Your task to perform on an android device: Open settings Image 0: 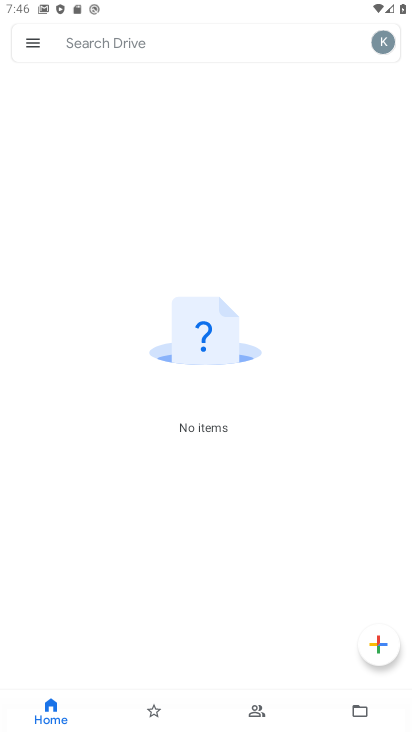
Step 0: press home button
Your task to perform on an android device: Open settings Image 1: 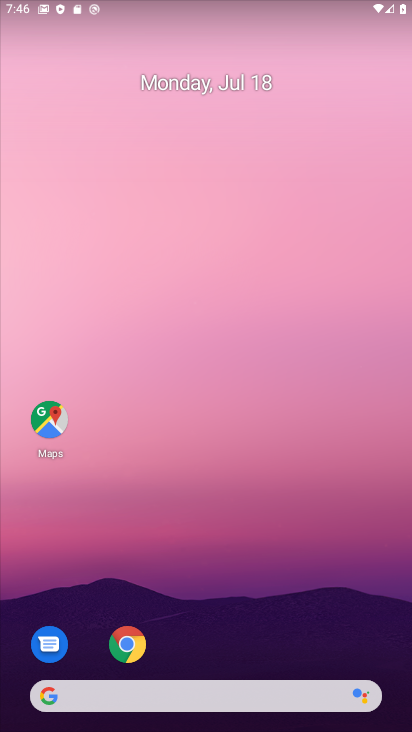
Step 1: drag from (163, 697) to (291, 171)
Your task to perform on an android device: Open settings Image 2: 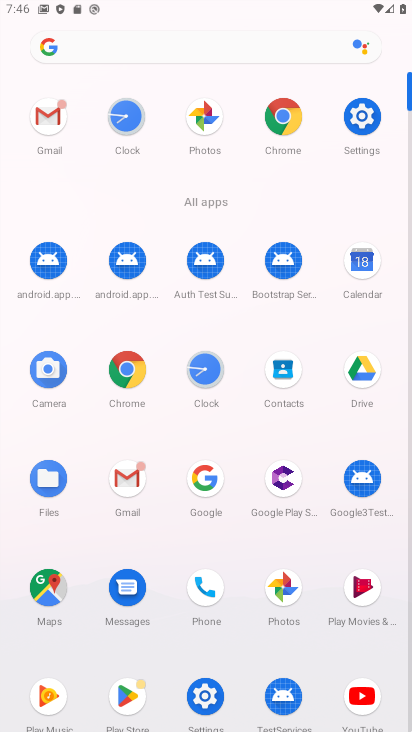
Step 2: click (356, 129)
Your task to perform on an android device: Open settings Image 3: 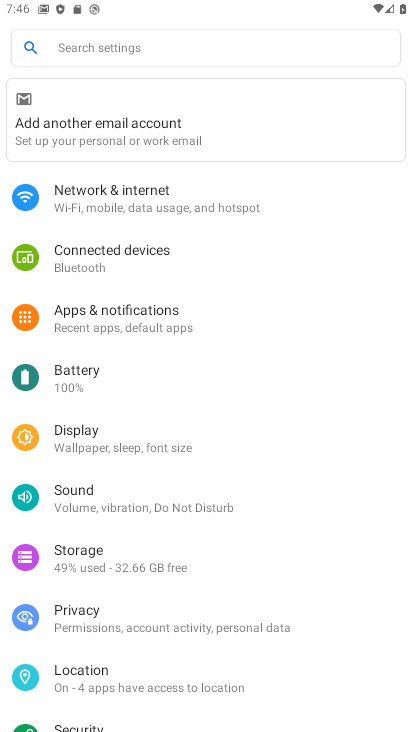
Step 3: task complete